Your task to perform on an android device: Go to ESPN.com Image 0: 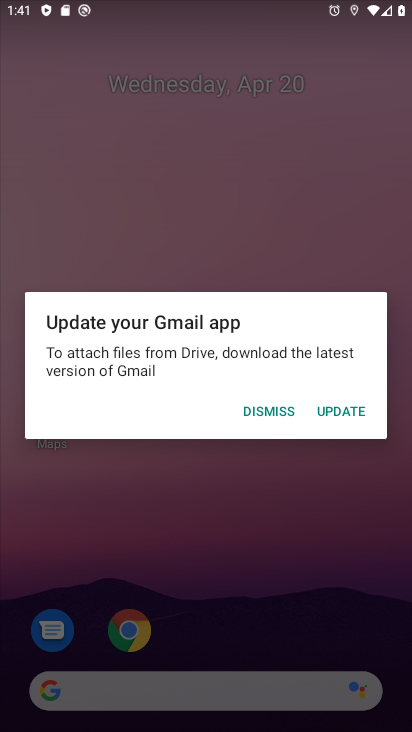
Step 0: press home button
Your task to perform on an android device: Go to ESPN.com Image 1: 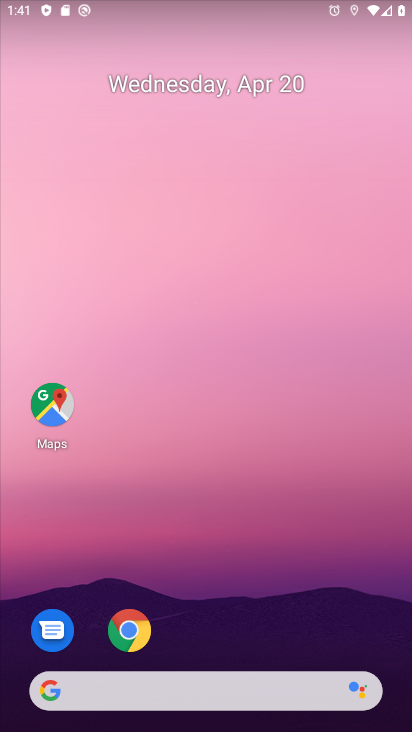
Step 1: click (139, 637)
Your task to perform on an android device: Go to ESPN.com Image 2: 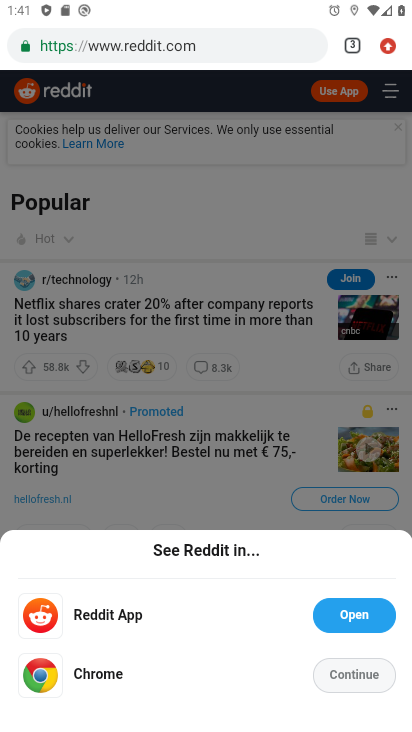
Step 2: click (350, 42)
Your task to perform on an android device: Go to ESPN.com Image 3: 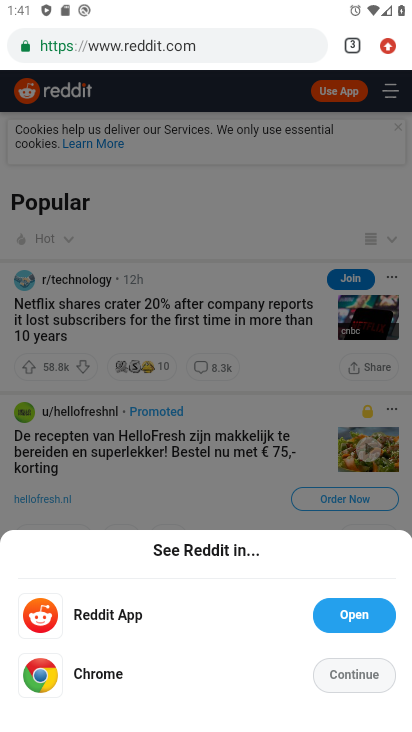
Step 3: click (352, 47)
Your task to perform on an android device: Go to ESPN.com Image 4: 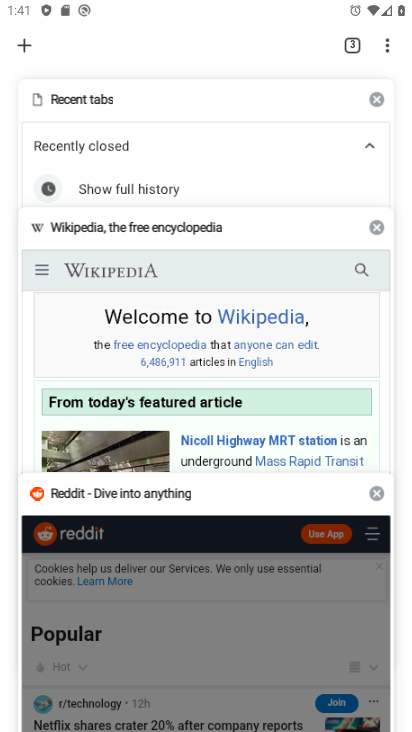
Step 4: click (21, 44)
Your task to perform on an android device: Go to ESPN.com Image 5: 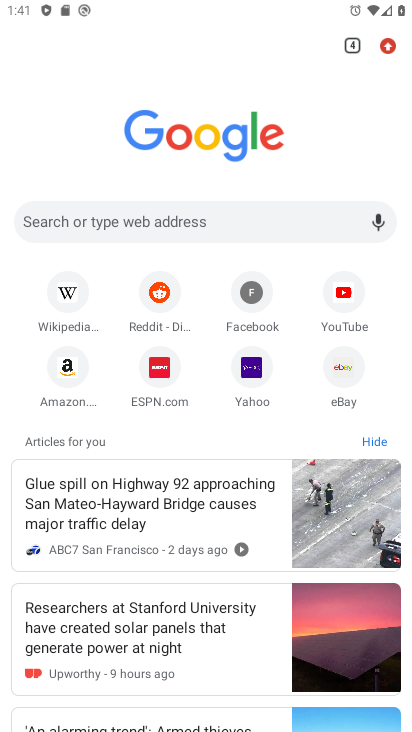
Step 5: click (163, 365)
Your task to perform on an android device: Go to ESPN.com Image 6: 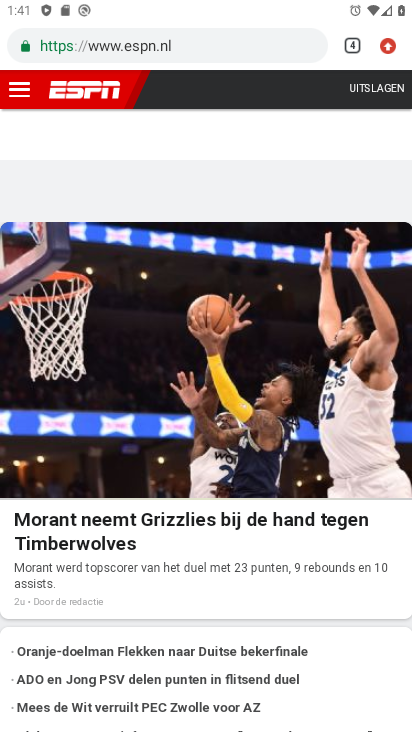
Step 6: task complete